Your task to perform on an android device: Open Reddit.com Image 0: 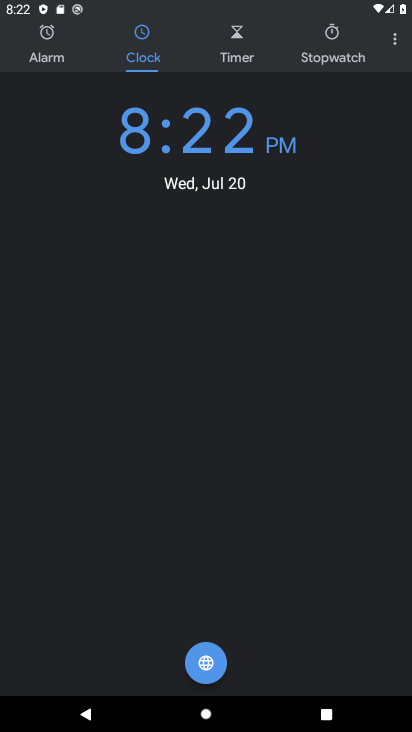
Step 0: press home button
Your task to perform on an android device: Open Reddit.com Image 1: 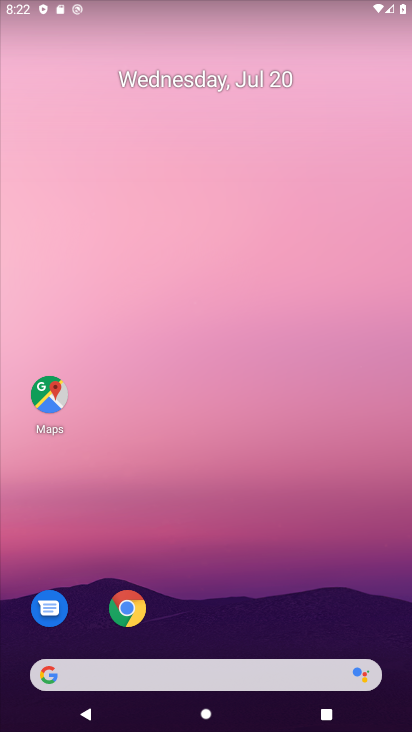
Step 1: drag from (205, 561) to (318, 91)
Your task to perform on an android device: Open Reddit.com Image 2: 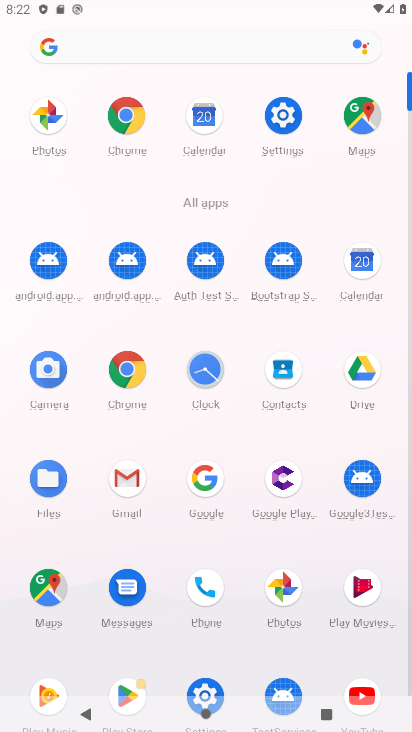
Step 2: click (136, 116)
Your task to perform on an android device: Open Reddit.com Image 3: 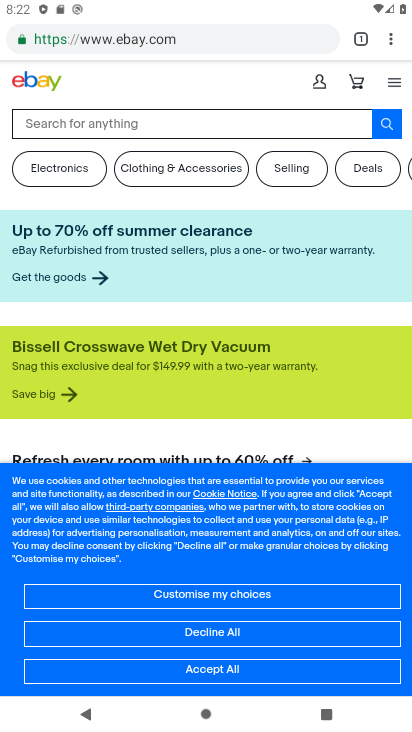
Step 3: press back button
Your task to perform on an android device: Open Reddit.com Image 4: 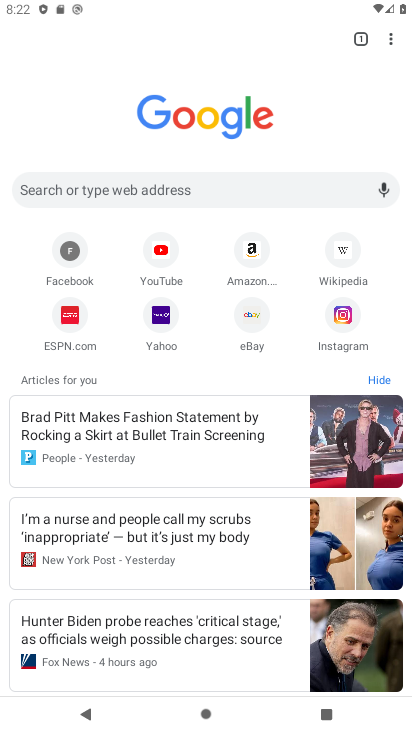
Step 4: click (140, 187)
Your task to perform on an android device: Open Reddit.com Image 5: 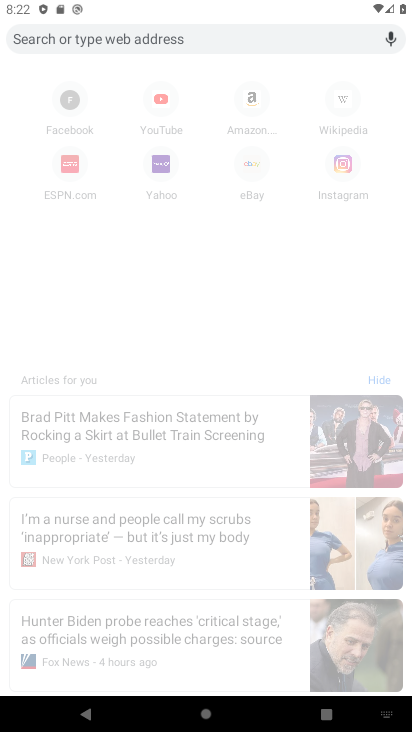
Step 5: type "Reddit.com"
Your task to perform on an android device: Open Reddit.com Image 6: 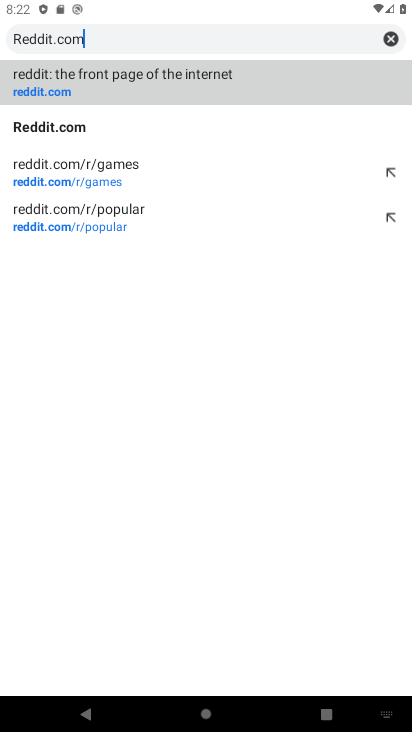
Step 6: click (41, 87)
Your task to perform on an android device: Open Reddit.com Image 7: 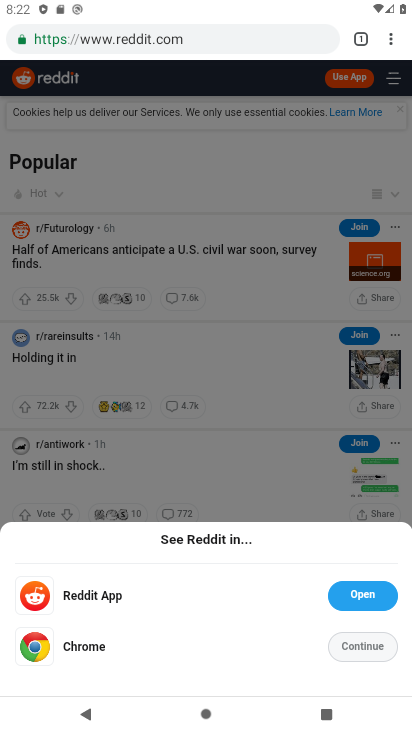
Step 7: task complete